Your task to perform on an android device: turn off location history Image 0: 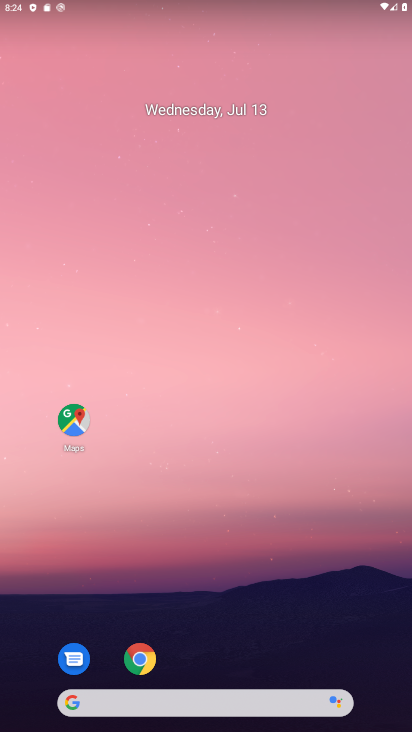
Step 0: drag from (22, 608) to (215, 71)
Your task to perform on an android device: turn off location history Image 1: 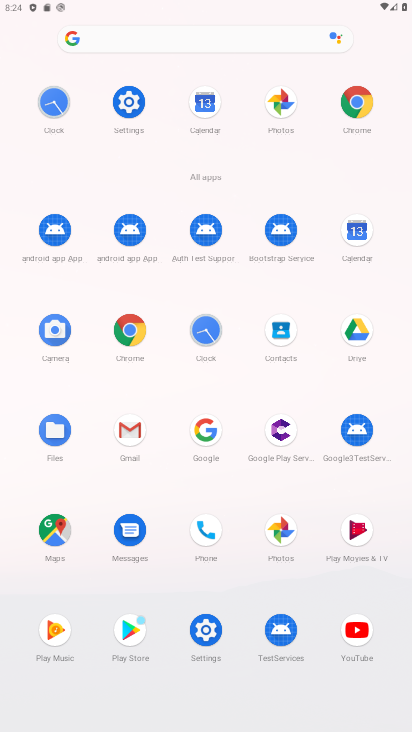
Step 1: click (114, 119)
Your task to perform on an android device: turn off location history Image 2: 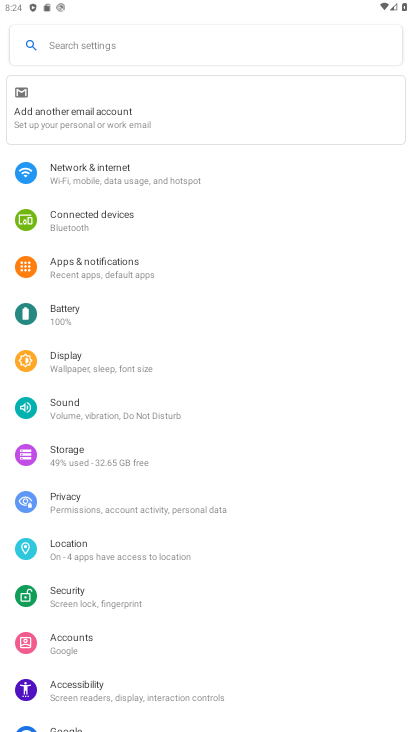
Step 2: click (136, 552)
Your task to perform on an android device: turn off location history Image 3: 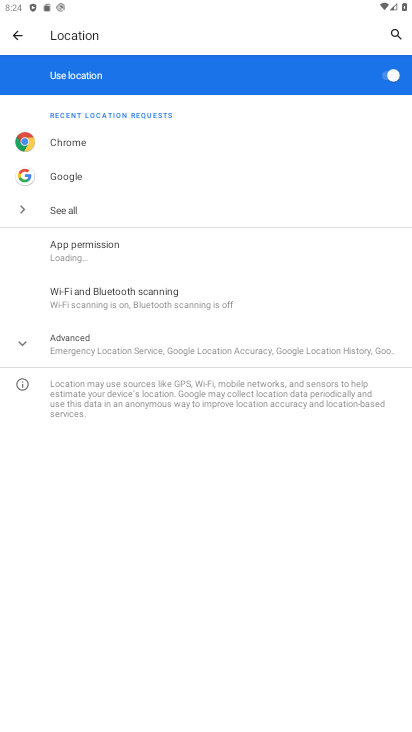
Step 3: click (394, 83)
Your task to perform on an android device: turn off location history Image 4: 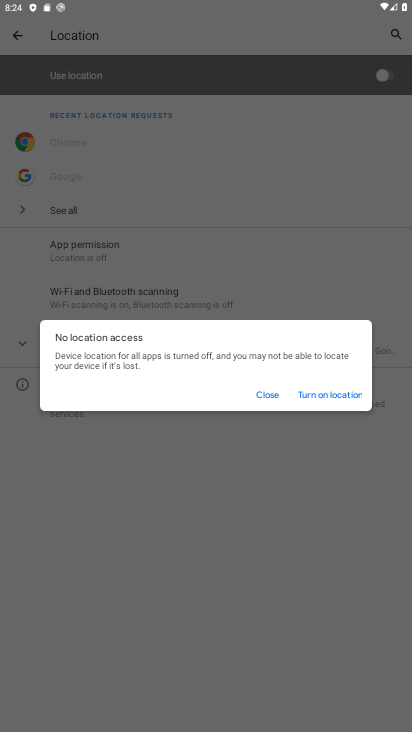
Step 4: click (261, 399)
Your task to perform on an android device: turn off location history Image 5: 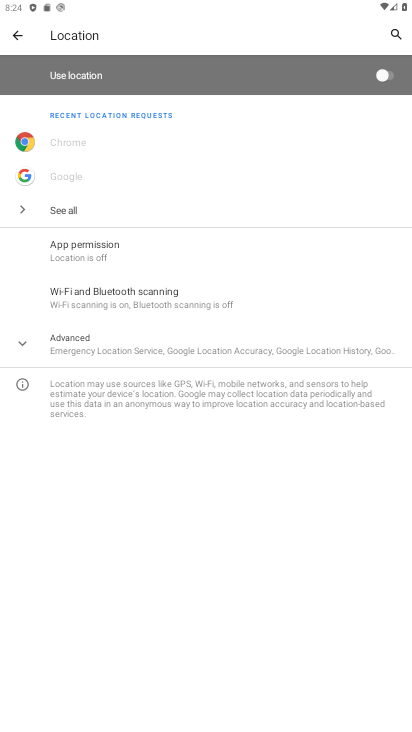
Step 5: task complete